Your task to perform on an android device: manage bookmarks in the chrome app Image 0: 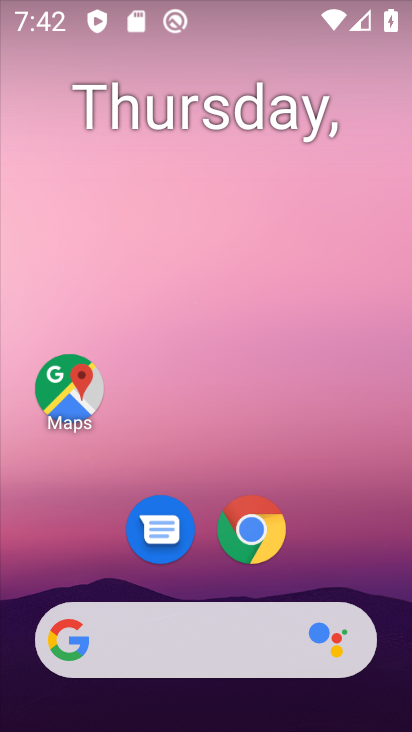
Step 0: click (250, 530)
Your task to perform on an android device: manage bookmarks in the chrome app Image 1: 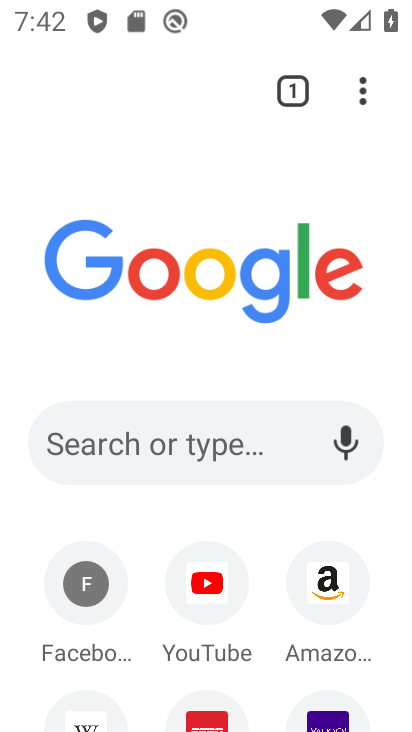
Step 1: click (381, 87)
Your task to perform on an android device: manage bookmarks in the chrome app Image 2: 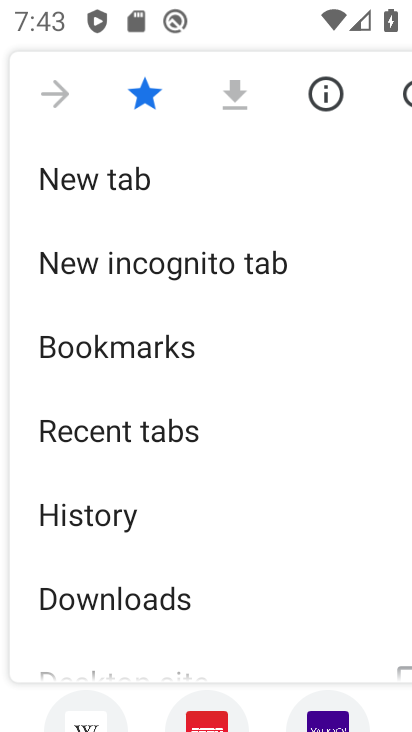
Step 2: click (105, 346)
Your task to perform on an android device: manage bookmarks in the chrome app Image 3: 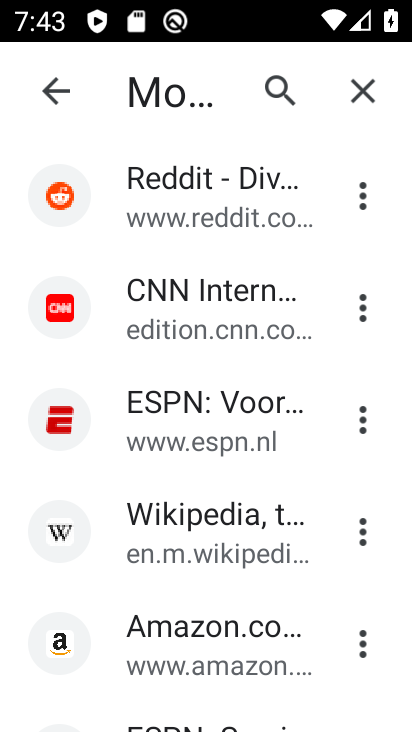
Step 3: click (381, 534)
Your task to perform on an android device: manage bookmarks in the chrome app Image 4: 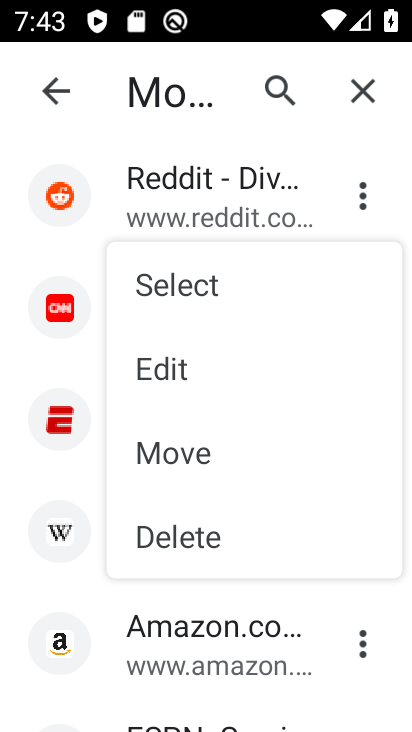
Step 4: click (192, 537)
Your task to perform on an android device: manage bookmarks in the chrome app Image 5: 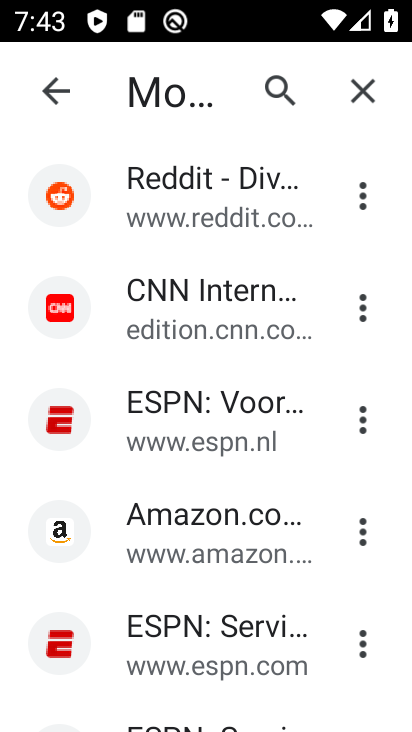
Step 5: task complete